Your task to perform on an android device: Open Chrome and go to settings Image 0: 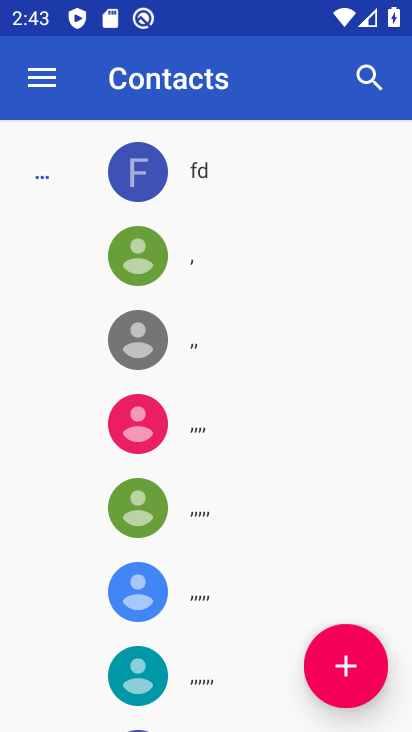
Step 0: press home button
Your task to perform on an android device: Open Chrome and go to settings Image 1: 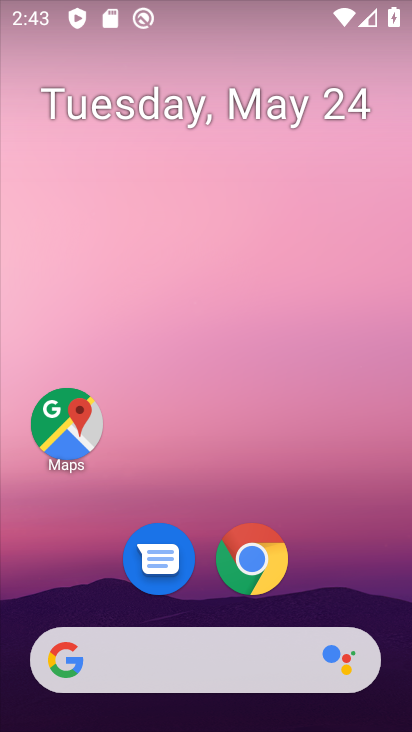
Step 1: click (254, 558)
Your task to perform on an android device: Open Chrome and go to settings Image 2: 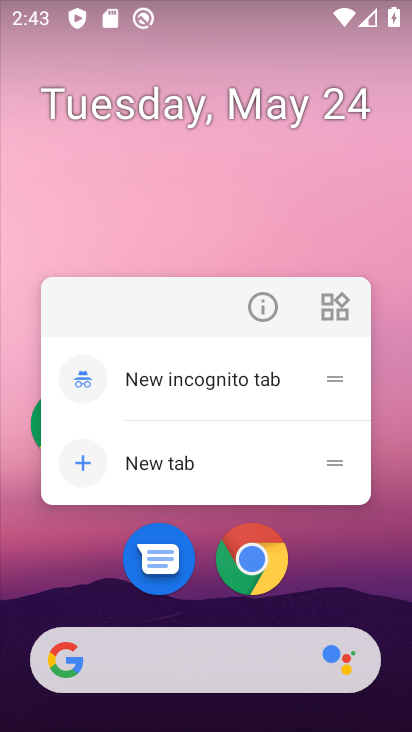
Step 2: click (254, 541)
Your task to perform on an android device: Open Chrome and go to settings Image 3: 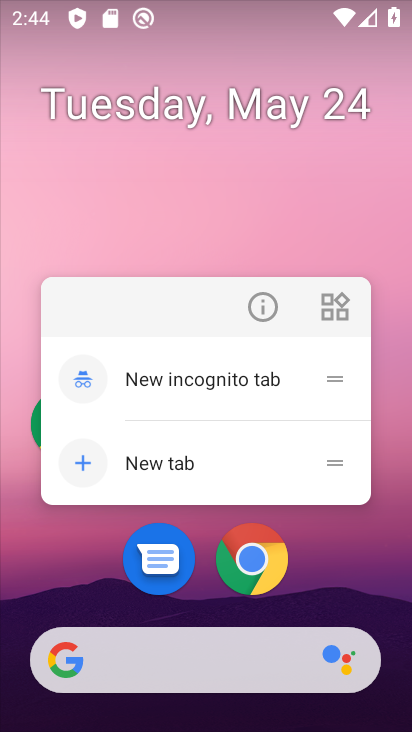
Step 3: click (264, 554)
Your task to perform on an android device: Open Chrome and go to settings Image 4: 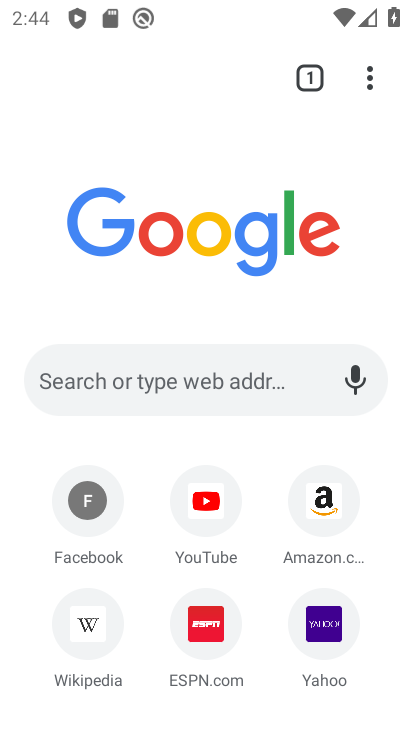
Step 4: task complete